Your task to perform on an android device: Open Maps and search for coffee Image 0: 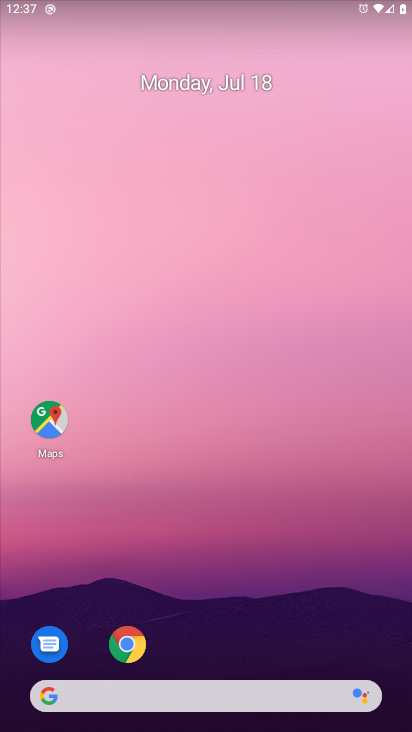
Step 0: press home button
Your task to perform on an android device: Open Maps and search for coffee Image 1: 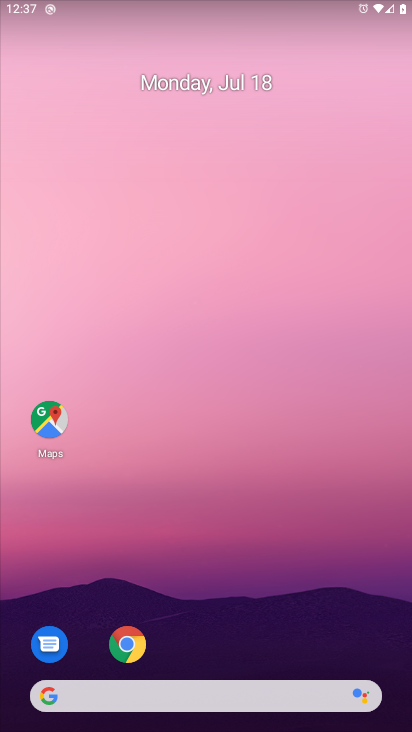
Step 1: click (49, 410)
Your task to perform on an android device: Open Maps and search for coffee Image 2: 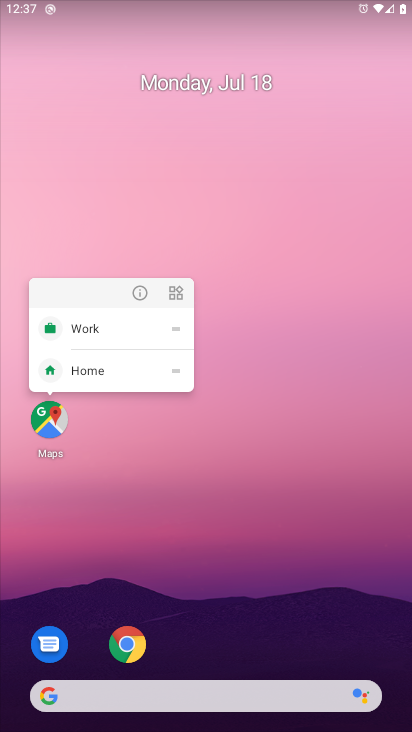
Step 2: click (53, 421)
Your task to perform on an android device: Open Maps and search for coffee Image 3: 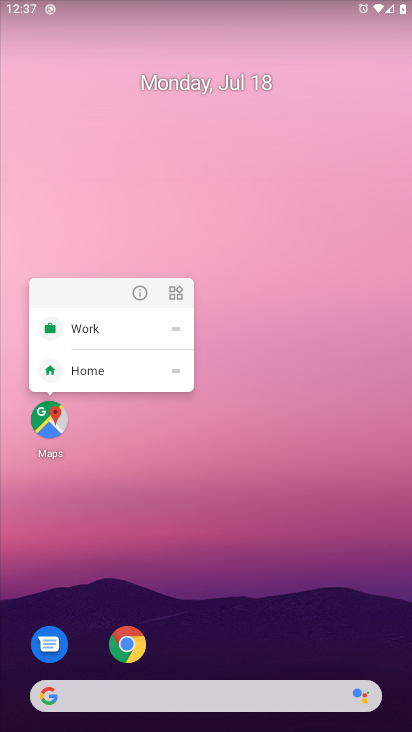
Step 3: click (53, 421)
Your task to perform on an android device: Open Maps and search for coffee Image 4: 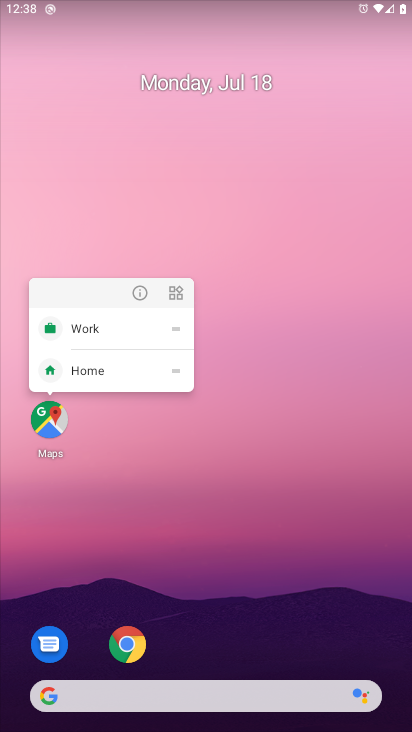
Step 4: click (46, 425)
Your task to perform on an android device: Open Maps and search for coffee Image 5: 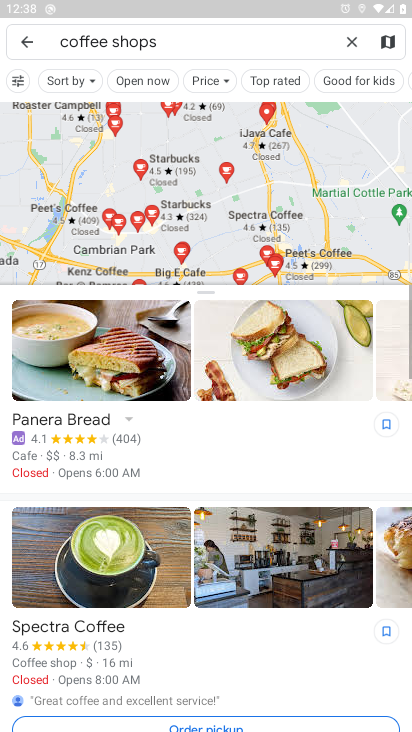
Step 5: click (25, 40)
Your task to perform on an android device: Open Maps and search for coffee Image 6: 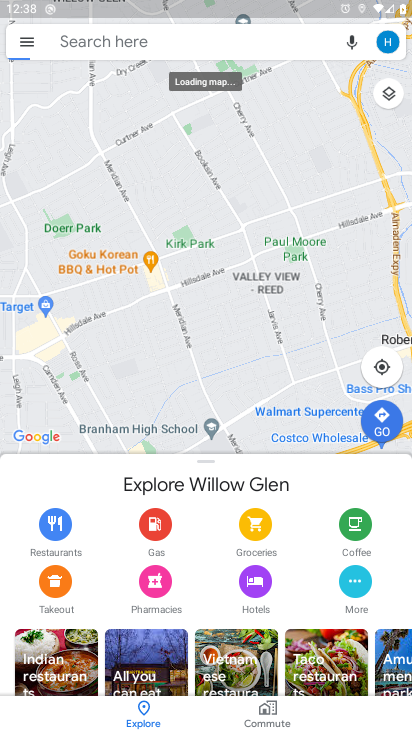
Step 6: type "coffee"
Your task to perform on an android device: Open Maps and search for coffee Image 7: 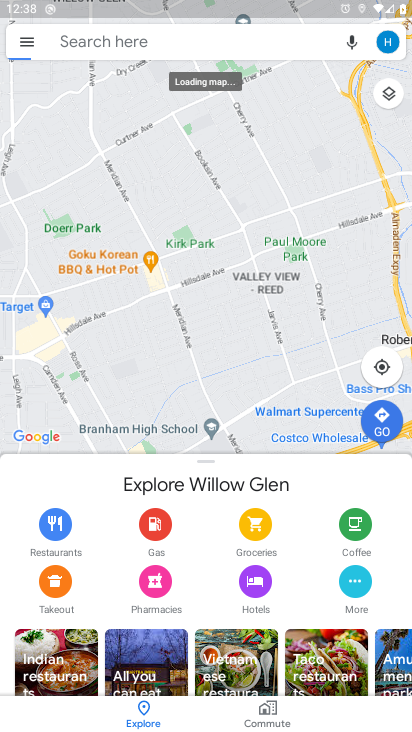
Step 7: click (129, 46)
Your task to perform on an android device: Open Maps and search for coffee Image 8: 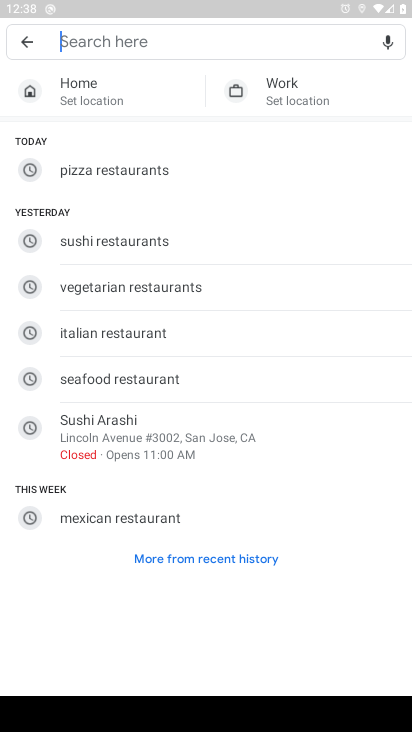
Step 8: click (103, 35)
Your task to perform on an android device: Open Maps and search for coffee Image 9: 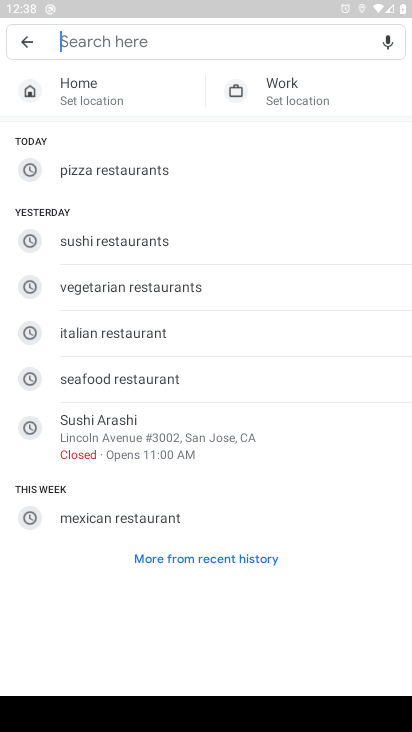
Step 9: type "coffee"
Your task to perform on an android device: Open Maps and search for coffee Image 10: 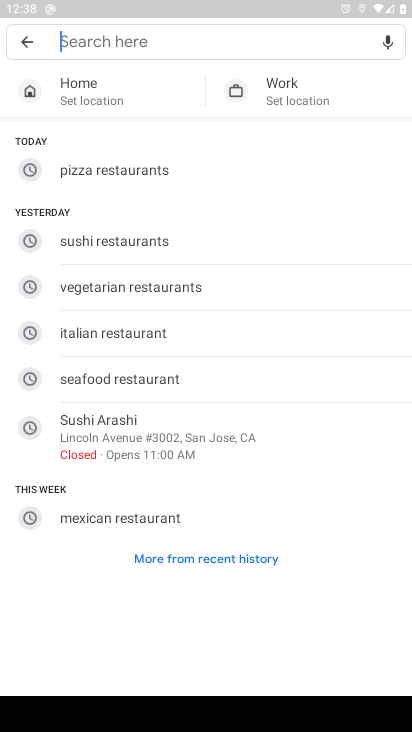
Step 10: click (103, 34)
Your task to perform on an android device: Open Maps and search for coffee Image 11: 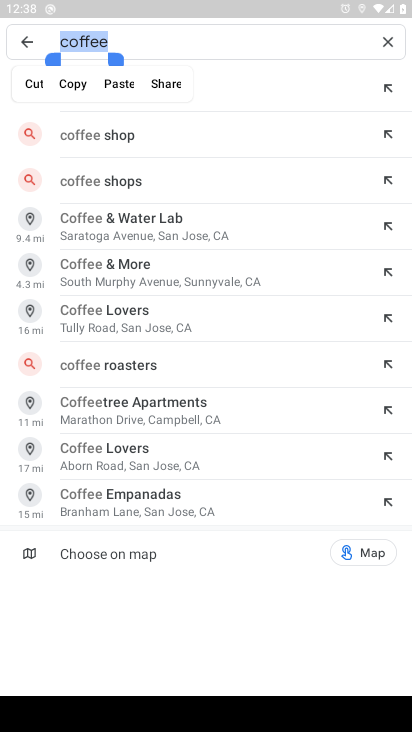
Step 11: press enter
Your task to perform on an android device: Open Maps and search for coffee Image 12: 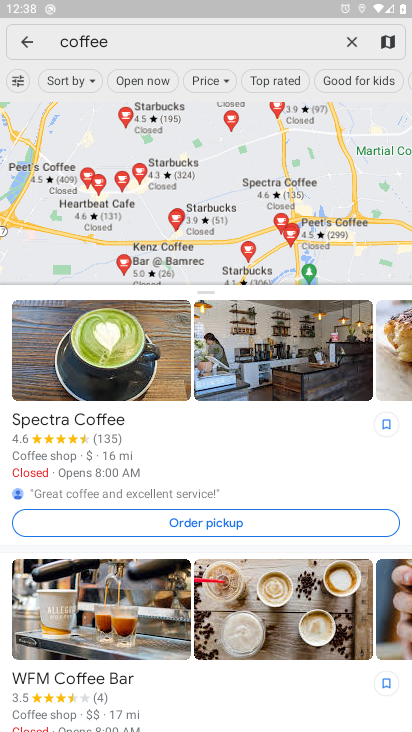
Step 12: task complete